Your task to perform on an android device: Open Google Maps and go to "Timeline" Image 0: 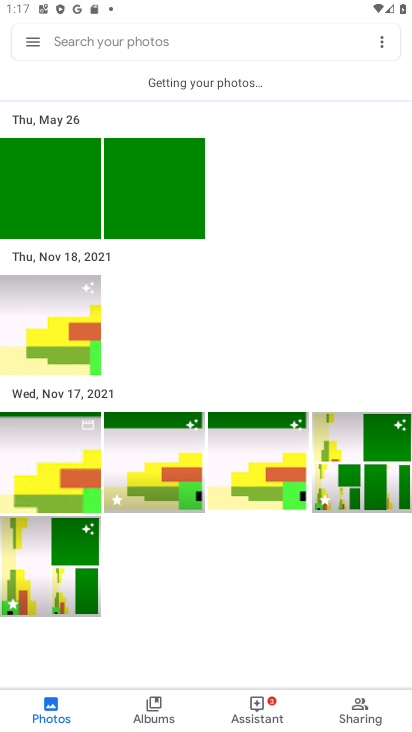
Step 0: press home button
Your task to perform on an android device: Open Google Maps and go to "Timeline" Image 1: 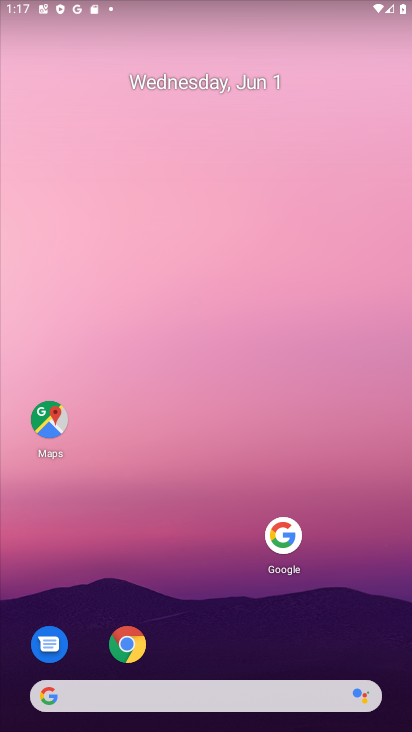
Step 1: click (42, 423)
Your task to perform on an android device: Open Google Maps and go to "Timeline" Image 2: 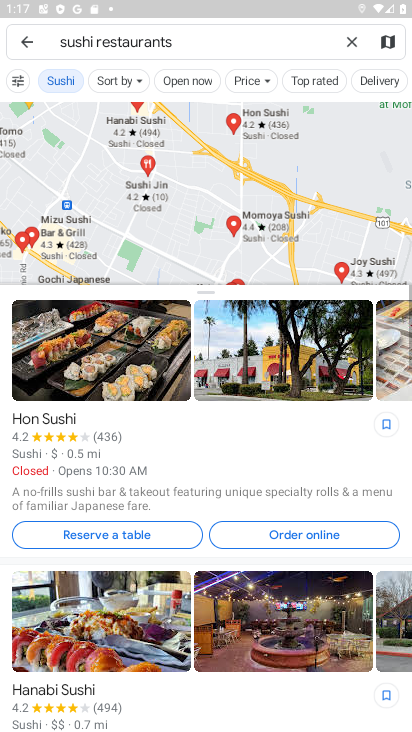
Step 2: click (28, 39)
Your task to perform on an android device: Open Google Maps and go to "Timeline" Image 3: 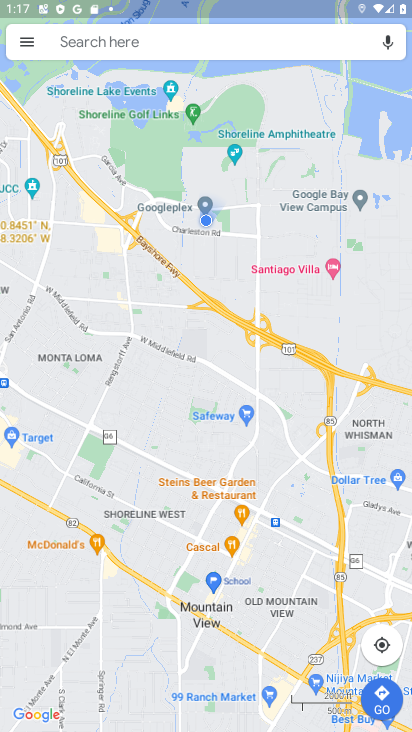
Step 3: click (28, 38)
Your task to perform on an android device: Open Google Maps and go to "Timeline" Image 4: 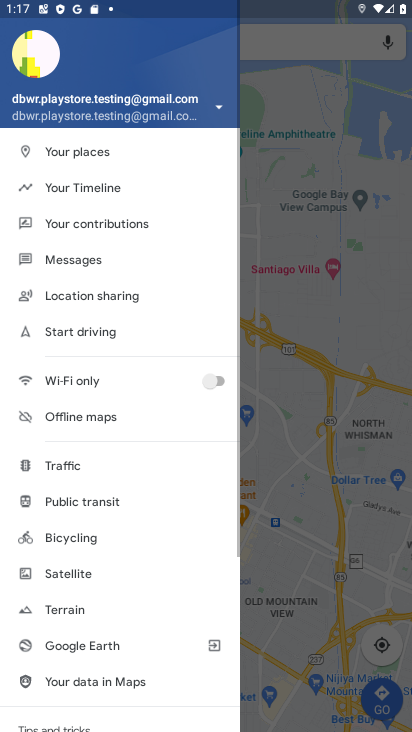
Step 4: click (117, 185)
Your task to perform on an android device: Open Google Maps and go to "Timeline" Image 5: 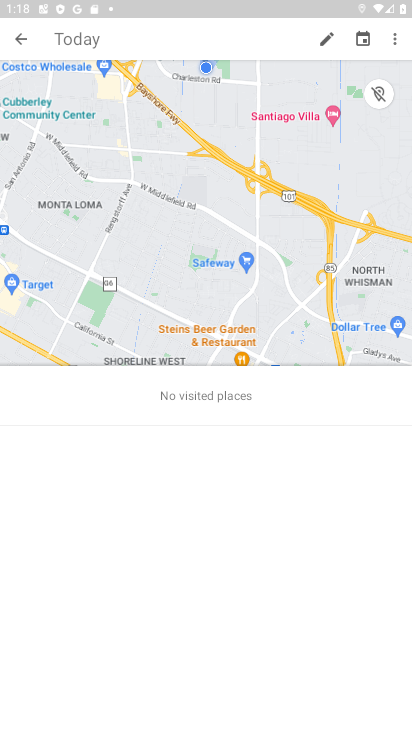
Step 5: task complete